Your task to perform on an android device: turn on the 12-hour format for clock Image 0: 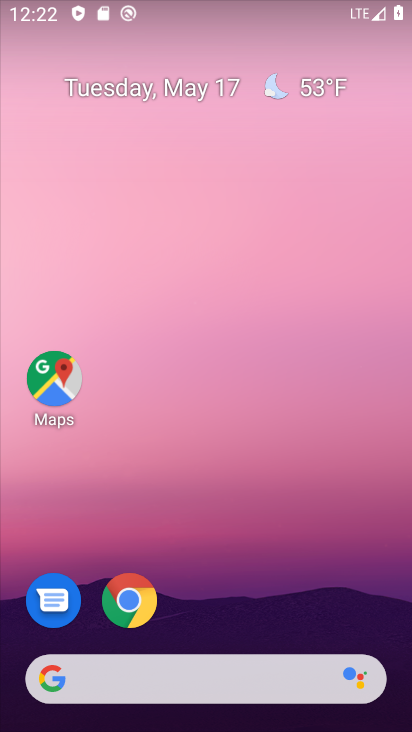
Step 0: drag from (226, 604) to (207, 20)
Your task to perform on an android device: turn on the 12-hour format for clock Image 1: 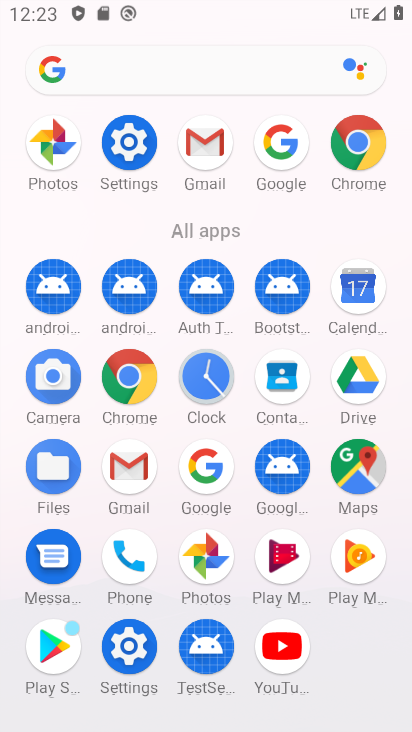
Step 1: click (227, 390)
Your task to perform on an android device: turn on the 12-hour format for clock Image 2: 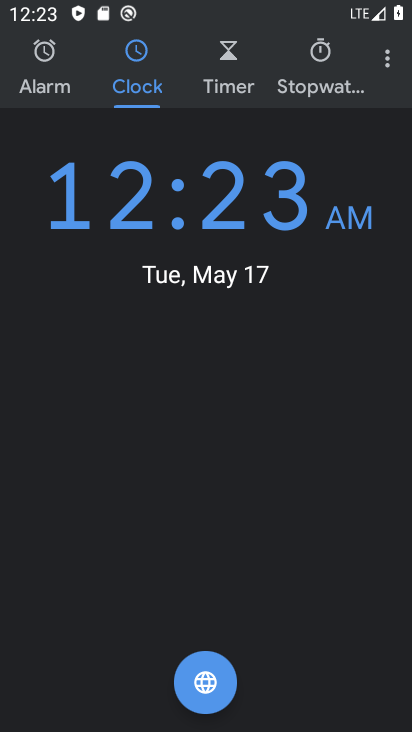
Step 2: click (383, 69)
Your task to perform on an android device: turn on the 12-hour format for clock Image 3: 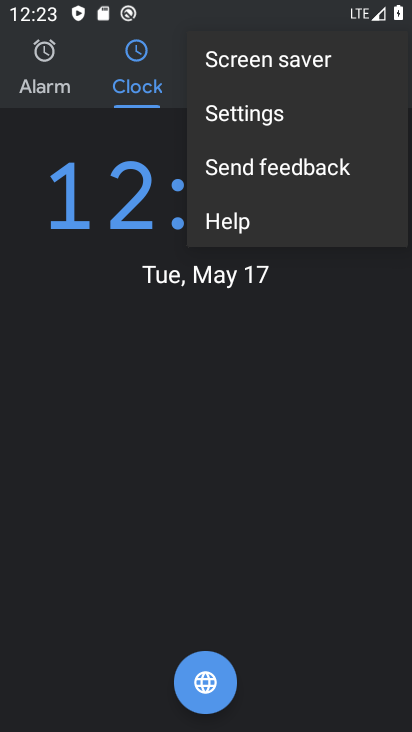
Step 3: click (289, 101)
Your task to perform on an android device: turn on the 12-hour format for clock Image 4: 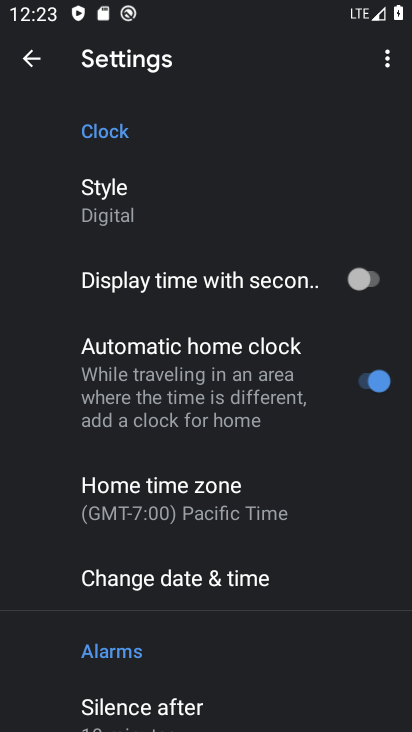
Step 4: drag from (174, 673) to (213, 365)
Your task to perform on an android device: turn on the 12-hour format for clock Image 5: 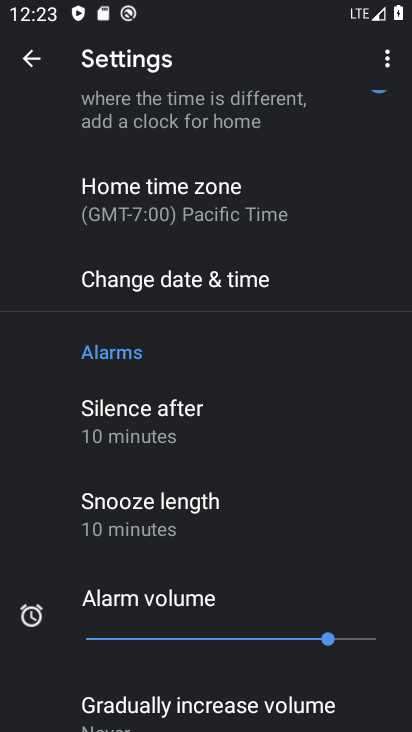
Step 5: click (198, 276)
Your task to perform on an android device: turn on the 12-hour format for clock Image 6: 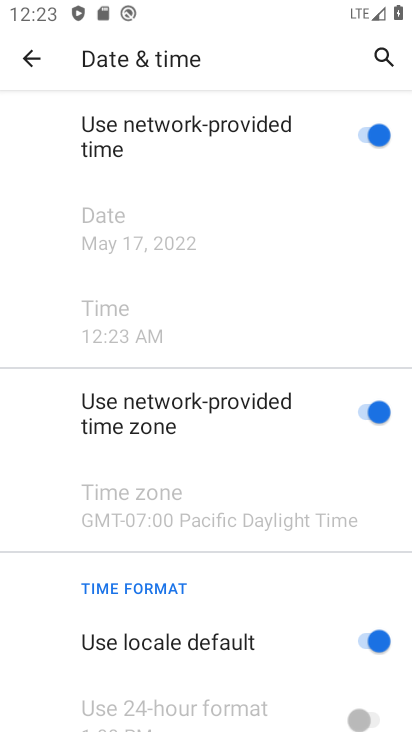
Step 6: task complete